Your task to perform on an android device: empty trash in google photos Image 0: 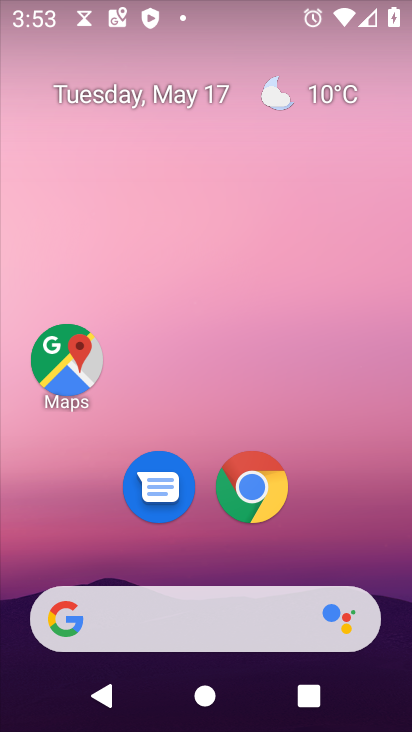
Step 0: drag from (393, 604) to (359, 62)
Your task to perform on an android device: empty trash in google photos Image 1: 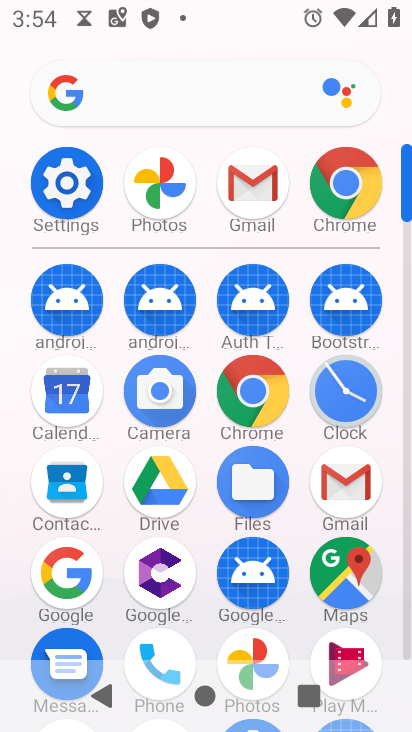
Step 1: click (409, 644)
Your task to perform on an android device: empty trash in google photos Image 2: 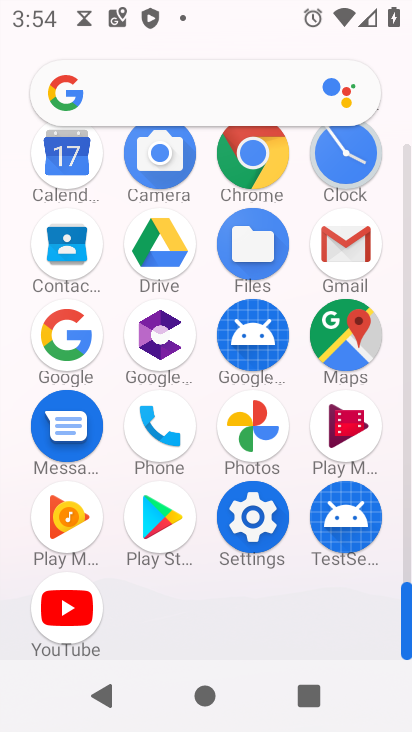
Step 2: click (252, 428)
Your task to perform on an android device: empty trash in google photos Image 3: 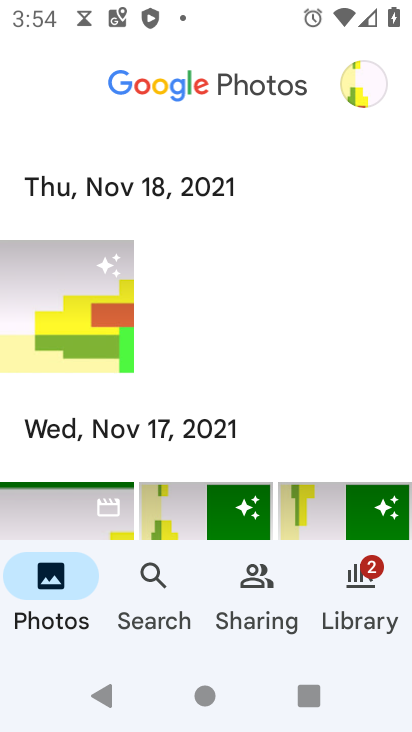
Step 3: click (362, 597)
Your task to perform on an android device: empty trash in google photos Image 4: 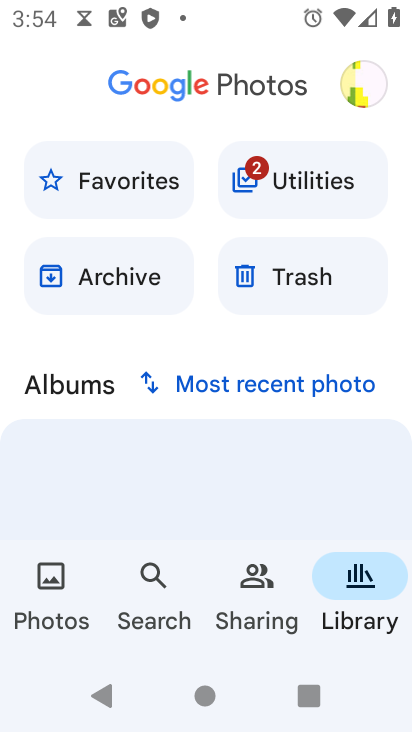
Step 4: click (306, 287)
Your task to perform on an android device: empty trash in google photos Image 5: 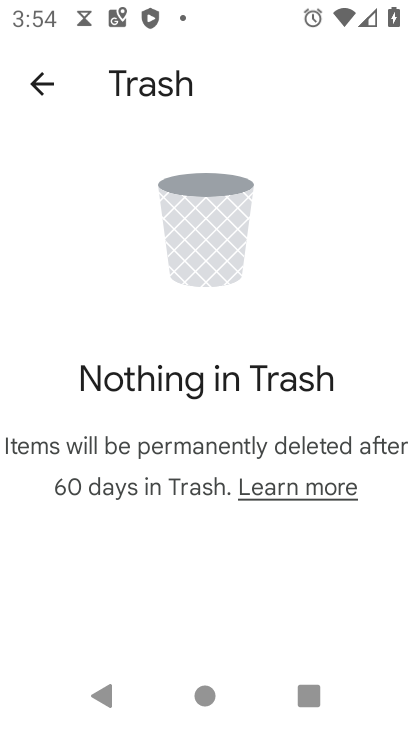
Step 5: task complete